Your task to perform on an android device: open a bookmark in the chrome app Image 0: 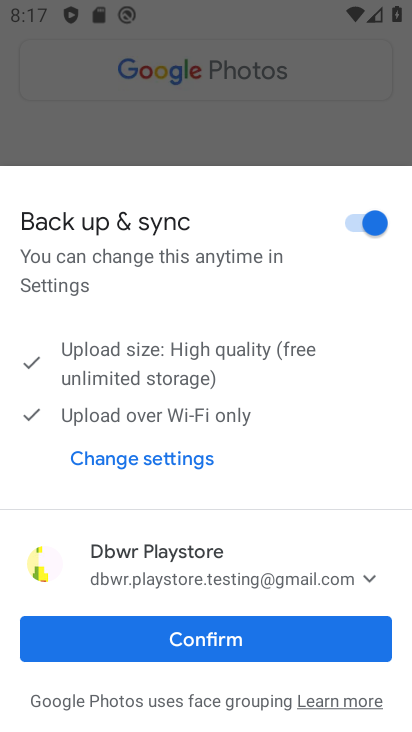
Step 0: press home button
Your task to perform on an android device: open a bookmark in the chrome app Image 1: 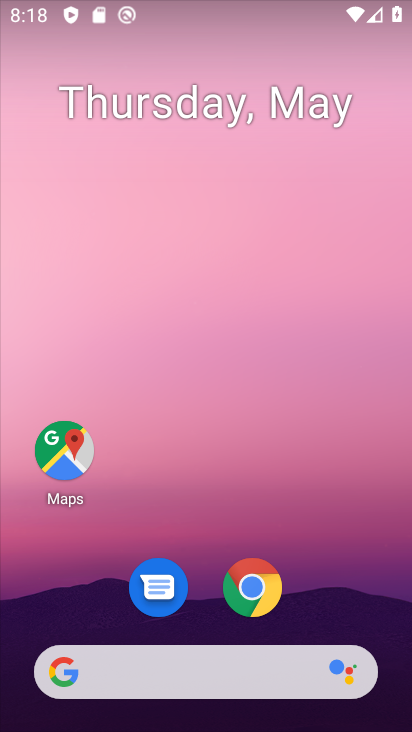
Step 1: click (260, 596)
Your task to perform on an android device: open a bookmark in the chrome app Image 2: 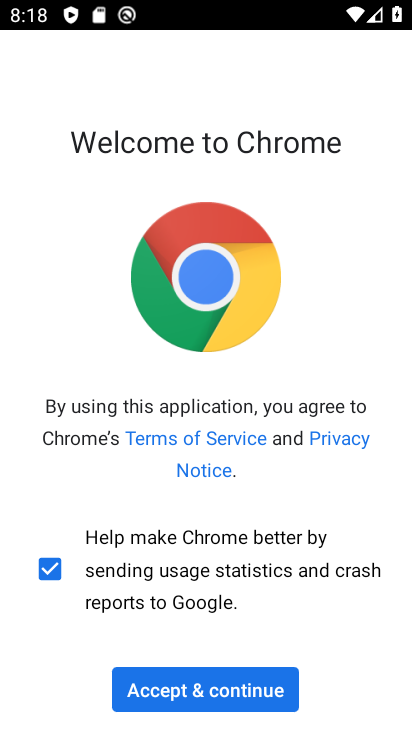
Step 2: click (248, 685)
Your task to perform on an android device: open a bookmark in the chrome app Image 3: 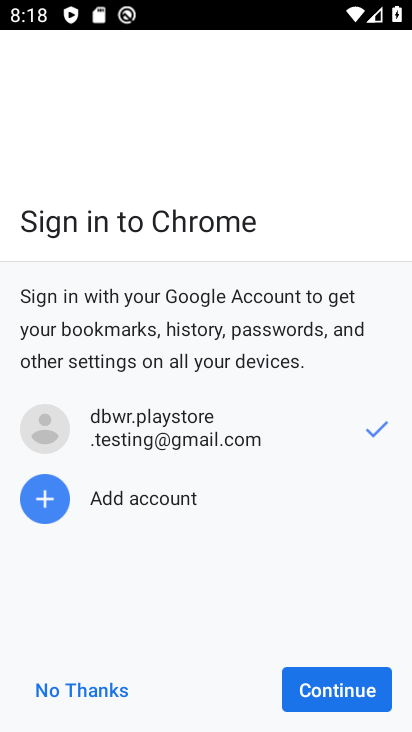
Step 3: click (317, 700)
Your task to perform on an android device: open a bookmark in the chrome app Image 4: 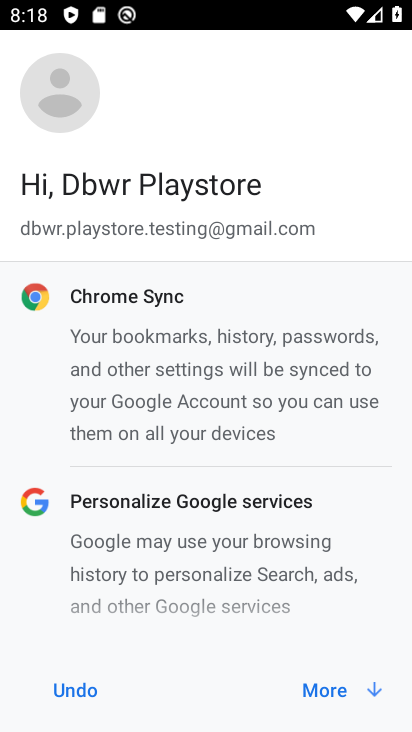
Step 4: click (314, 699)
Your task to perform on an android device: open a bookmark in the chrome app Image 5: 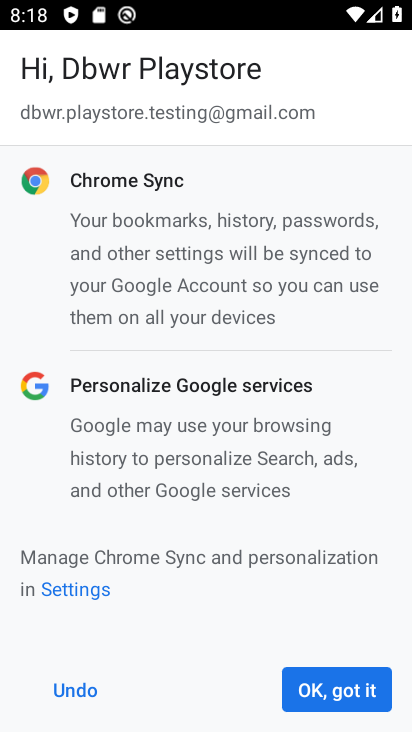
Step 5: click (314, 699)
Your task to perform on an android device: open a bookmark in the chrome app Image 6: 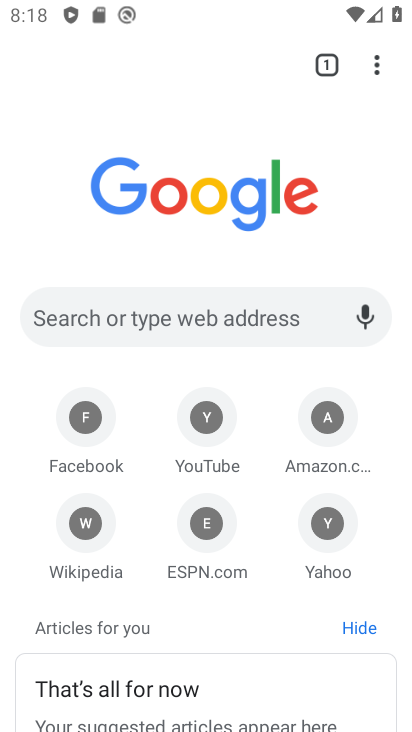
Step 6: click (382, 72)
Your task to perform on an android device: open a bookmark in the chrome app Image 7: 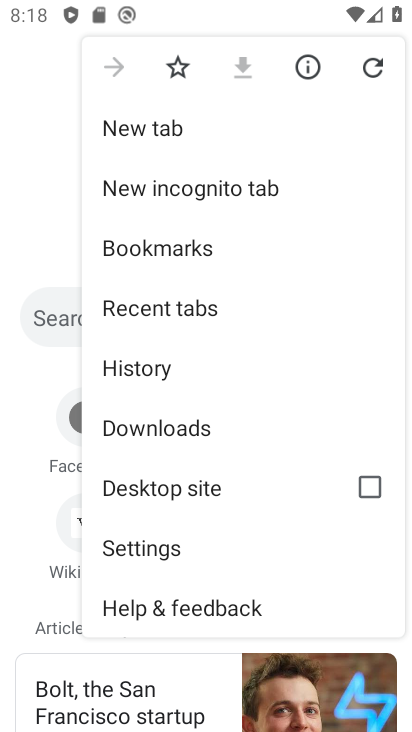
Step 7: click (181, 248)
Your task to perform on an android device: open a bookmark in the chrome app Image 8: 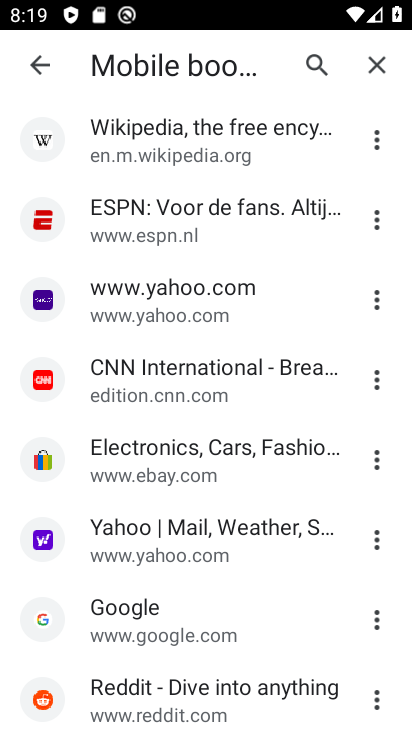
Step 8: click (204, 233)
Your task to perform on an android device: open a bookmark in the chrome app Image 9: 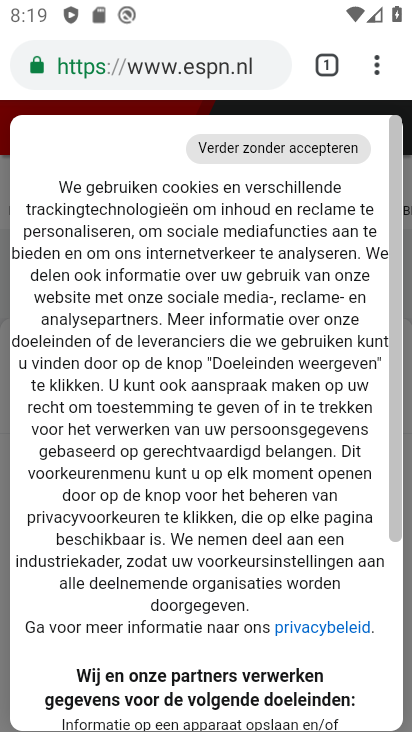
Step 9: task complete